Your task to perform on an android device: change the clock style Image 0: 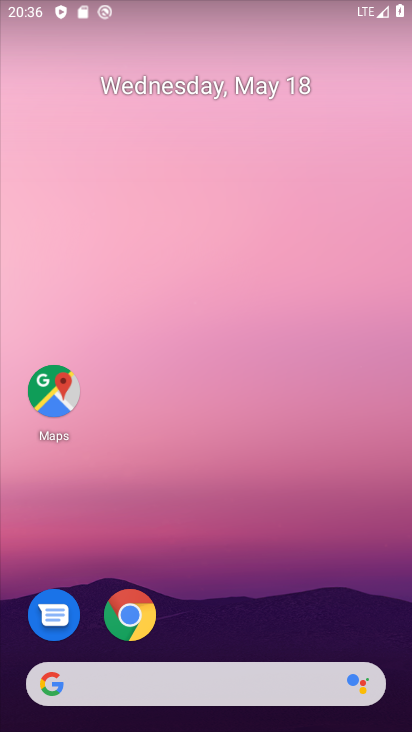
Step 0: drag from (231, 673) to (232, 146)
Your task to perform on an android device: change the clock style Image 1: 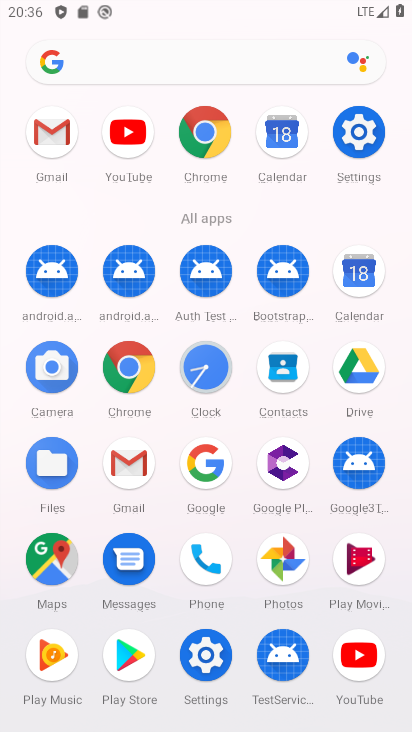
Step 1: click (214, 369)
Your task to perform on an android device: change the clock style Image 2: 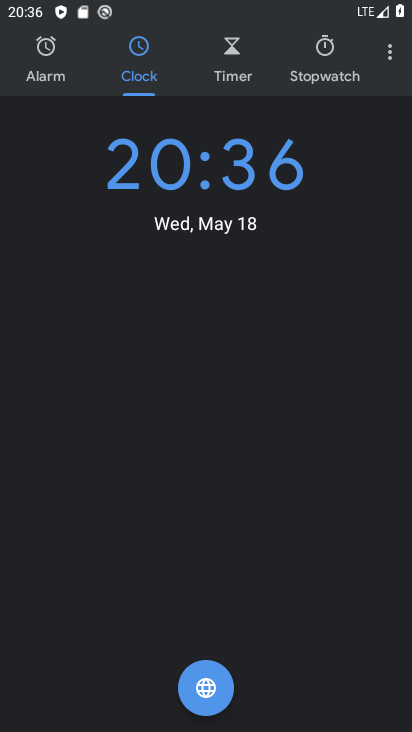
Step 2: click (397, 51)
Your task to perform on an android device: change the clock style Image 3: 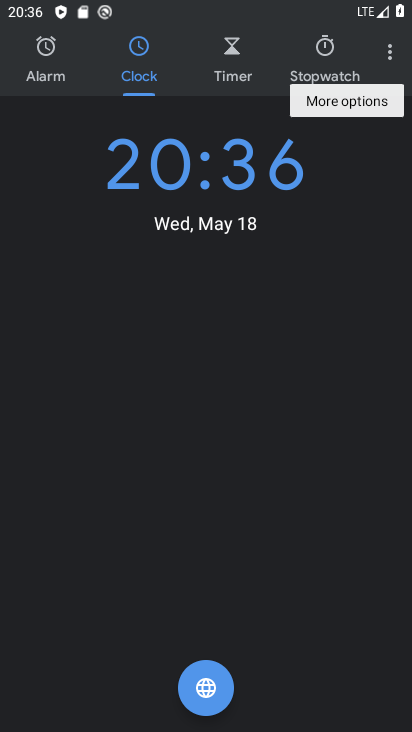
Step 3: click (397, 51)
Your task to perform on an android device: change the clock style Image 4: 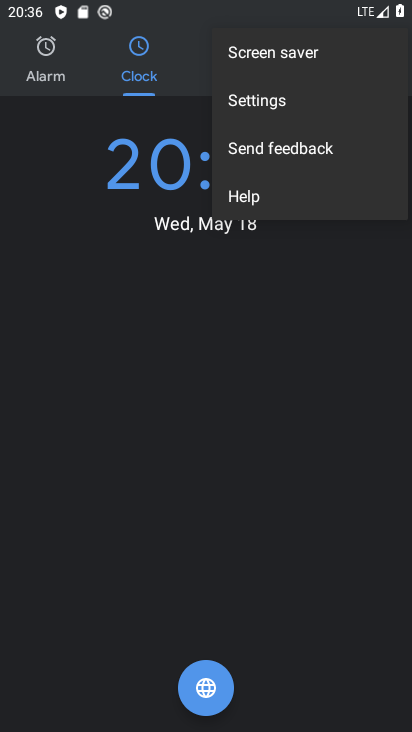
Step 4: click (282, 101)
Your task to perform on an android device: change the clock style Image 5: 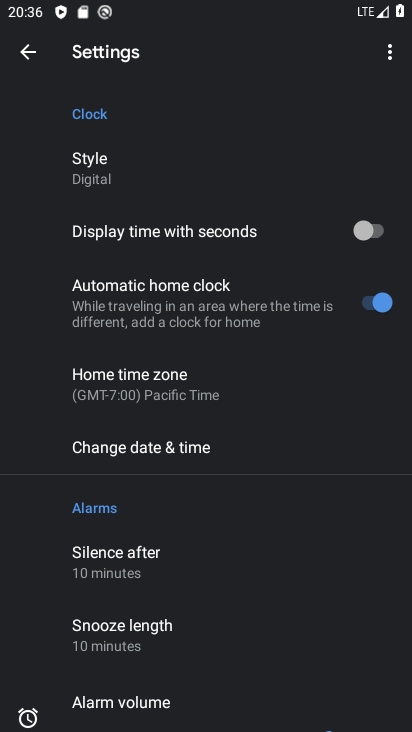
Step 5: click (114, 178)
Your task to perform on an android device: change the clock style Image 6: 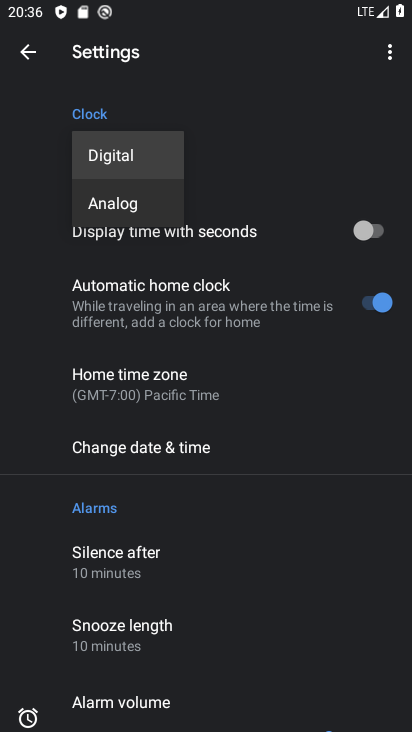
Step 6: click (114, 205)
Your task to perform on an android device: change the clock style Image 7: 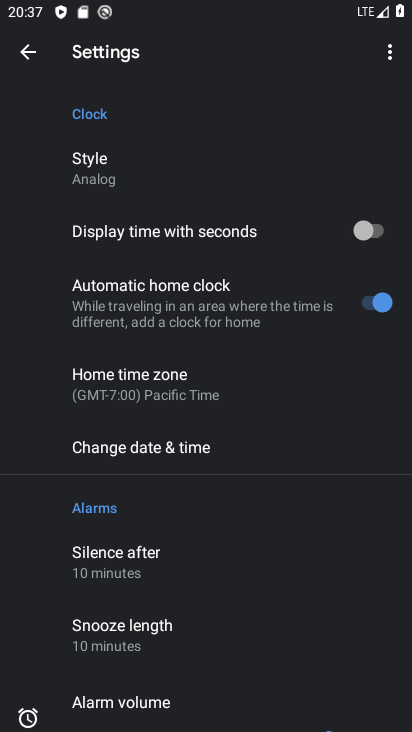
Step 7: task complete